Your task to perform on an android device: Go to calendar. Show me events next week Image 0: 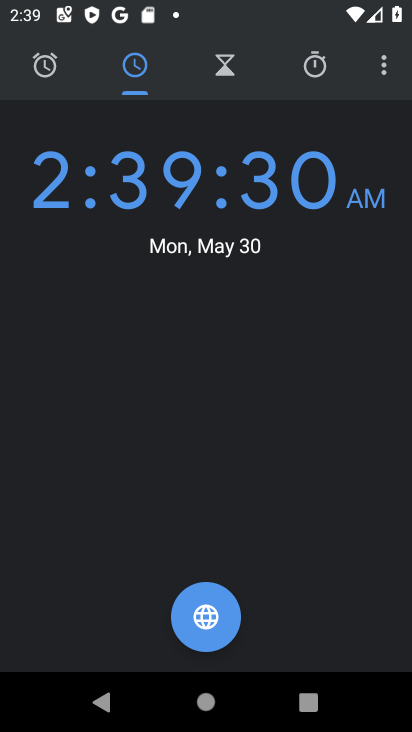
Step 0: click (288, 149)
Your task to perform on an android device: Go to calendar. Show me events next week Image 1: 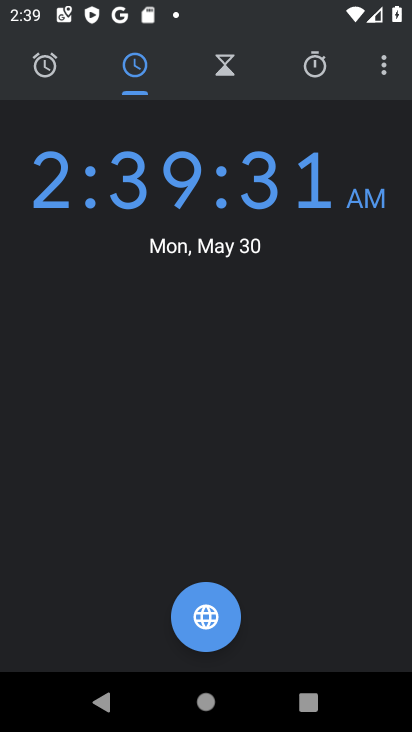
Step 1: press home button
Your task to perform on an android device: Go to calendar. Show me events next week Image 2: 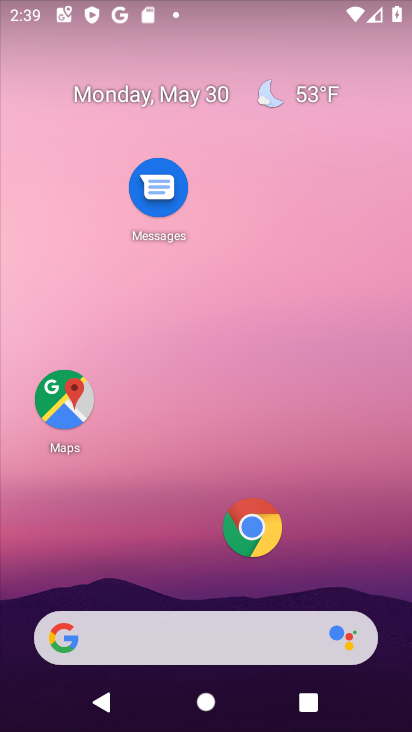
Step 2: drag from (181, 584) to (324, 3)
Your task to perform on an android device: Go to calendar. Show me events next week Image 3: 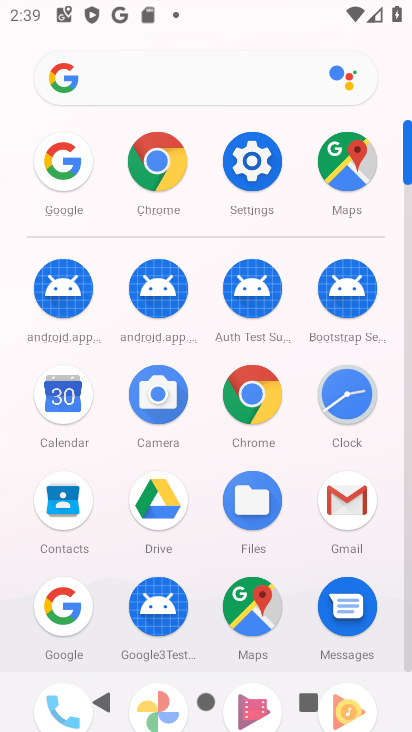
Step 3: click (80, 411)
Your task to perform on an android device: Go to calendar. Show me events next week Image 4: 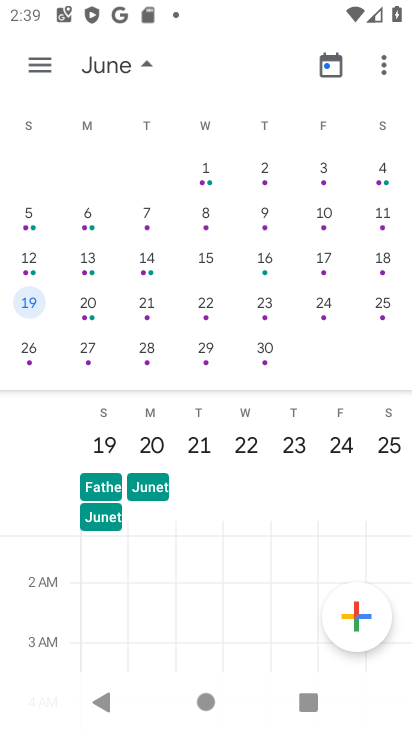
Step 4: click (206, 181)
Your task to perform on an android device: Go to calendar. Show me events next week Image 5: 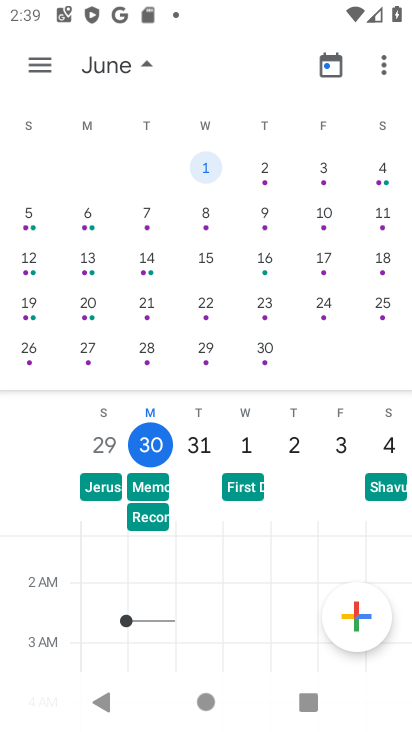
Step 5: click (205, 181)
Your task to perform on an android device: Go to calendar. Show me events next week Image 6: 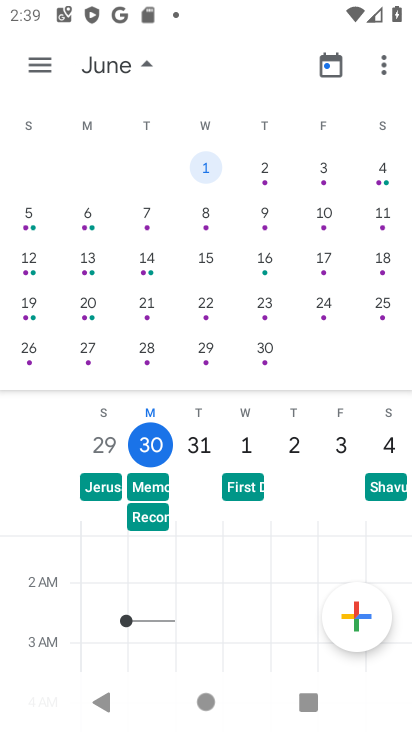
Step 6: task complete